Your task to perform on an android device: read, delete, or share a saved page in the chrome app Image 0: 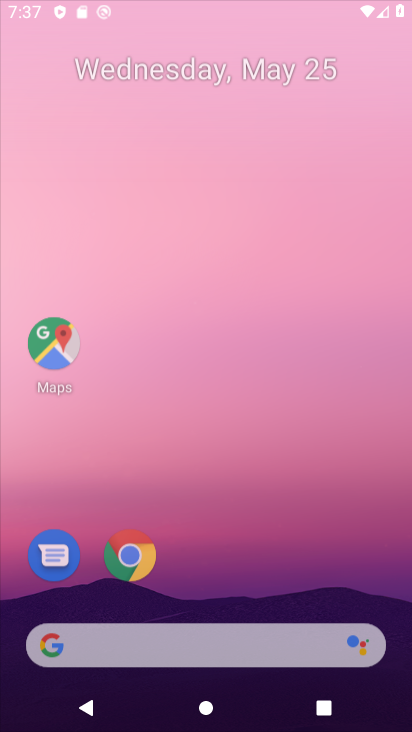
Step 0: drag from (283, 598) to (264, 344)
Your task to perform on an android device: read, delete, or share a saved page in the chrome app Image 1: 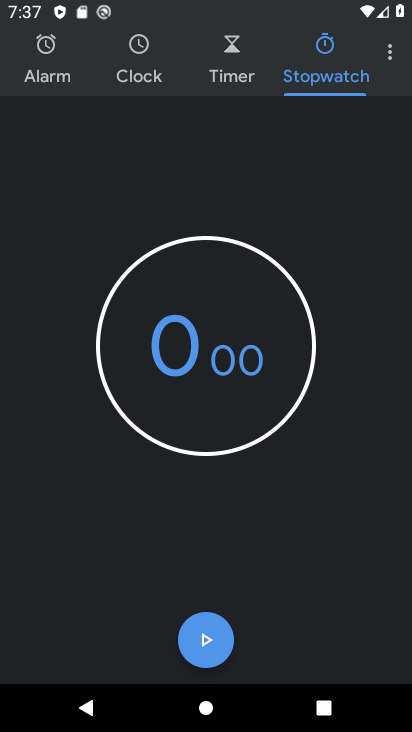
Step 1: press home button
Your task to perform on an android device: read, delete, or share a saved page in the chrome app Image 2: 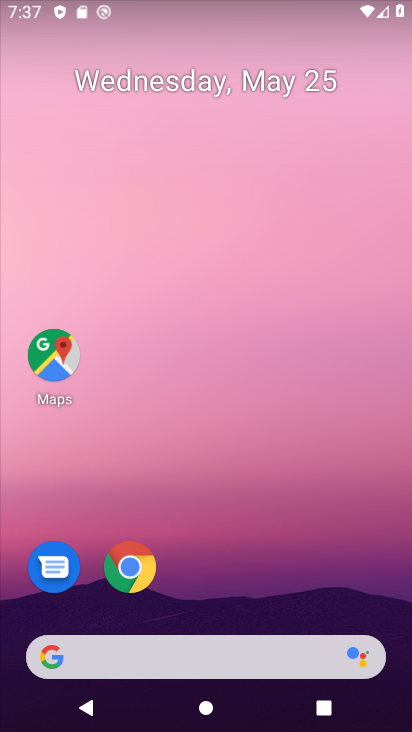
Step 2: click (116, 560)
Your task to perform on an android device: read, delete, or share a saved page in the chrome app Image 3: 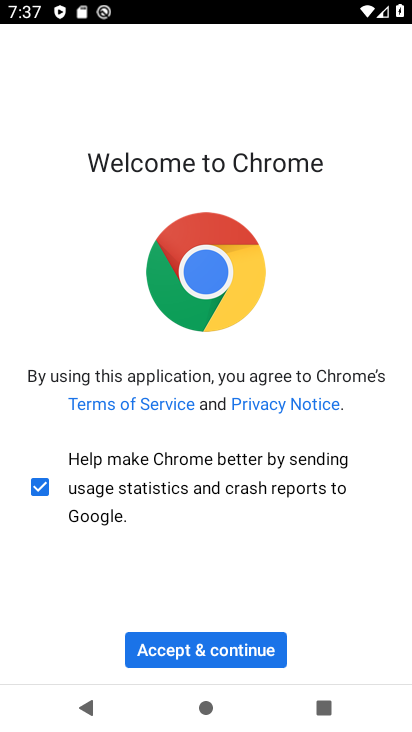
Step 3: click (167, 633)
Your task to perform on an android device: read, delete, or share a saved page in the chrome app Image 4: 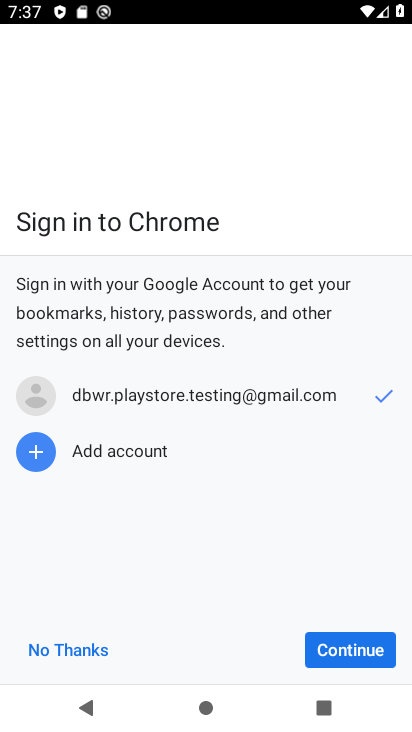
Step 4: click (321, 651)
Your task to perform on an android device: read, delete, or share a saved page in the chrome app Image 5: 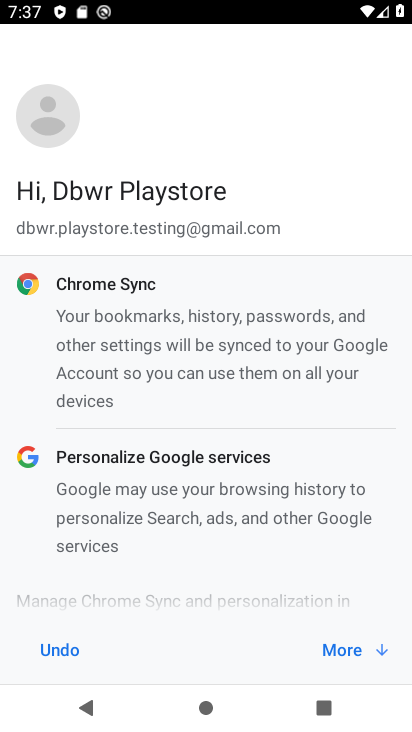
Step 5: click (321, 651)
Your task to perform on an android device: read, delete, or share a saved page in the chrome app Image 6: 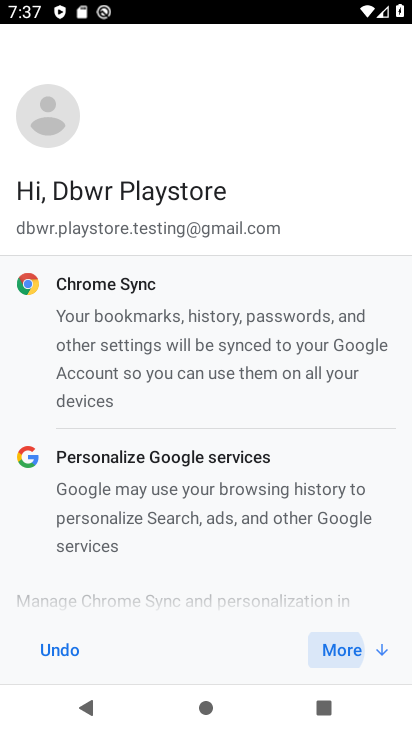
Step 6: click (321, 651)
Your task to perform on an android device: read, delete, or share a saved page in the chrome app Image 7: 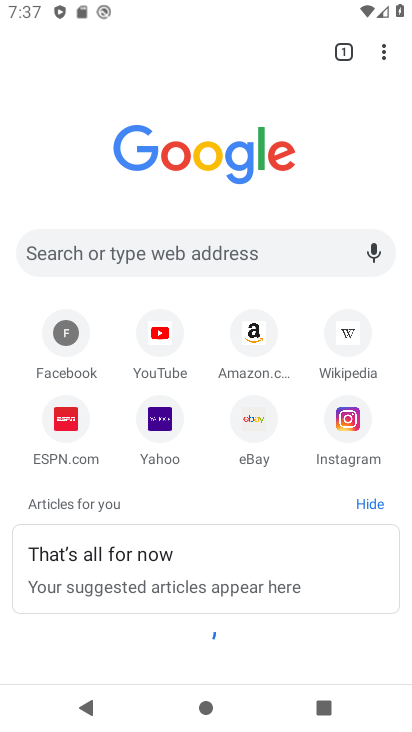
Step 7: click (378, 58)
Your task to perform on an android device: read, delete, or share a saved page in the chrome app Image 8: 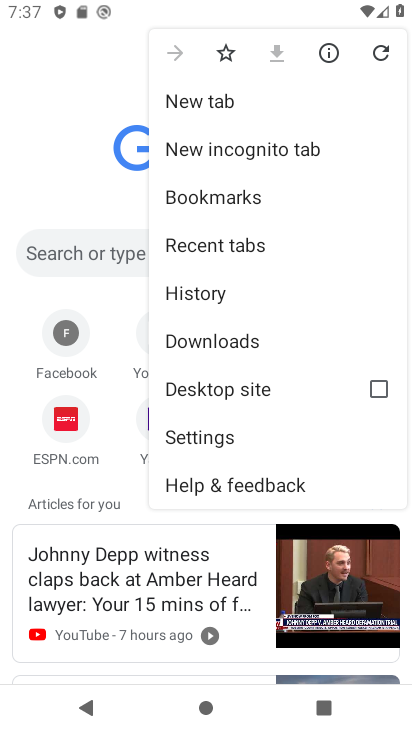
Step 8: click (233, 440)
Your task to perform on an android device: read, delete, or share a saved page in the chrome app Image 9: 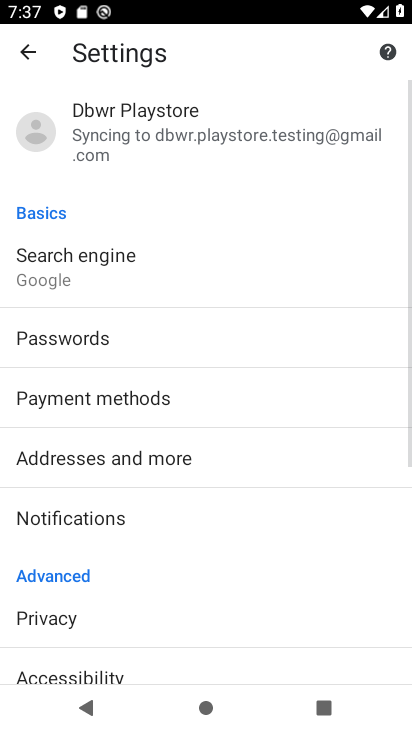
Step 9: task complete